Your task to perform on an android device: toggle location history Image 0: 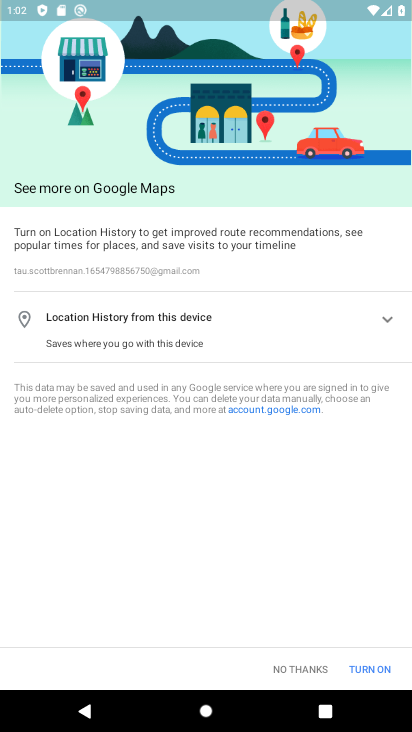
Step 0: press home button
Your task to perform on an android device: toggle location history Image 1: 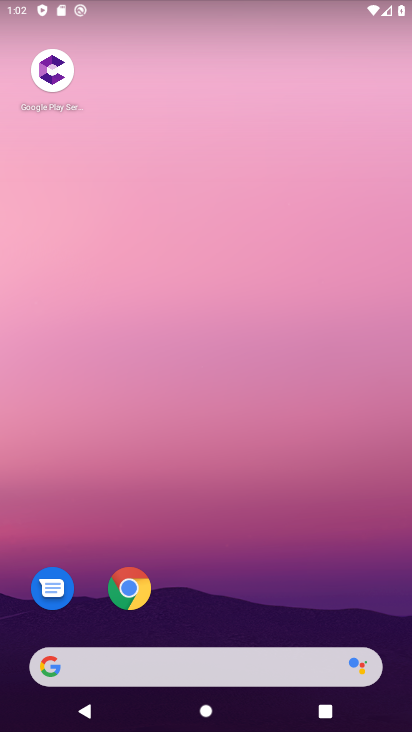
Step 1: drag from (374, 573) to (312, 0)
Your task to perform on an android device: toggle location history Image 2: 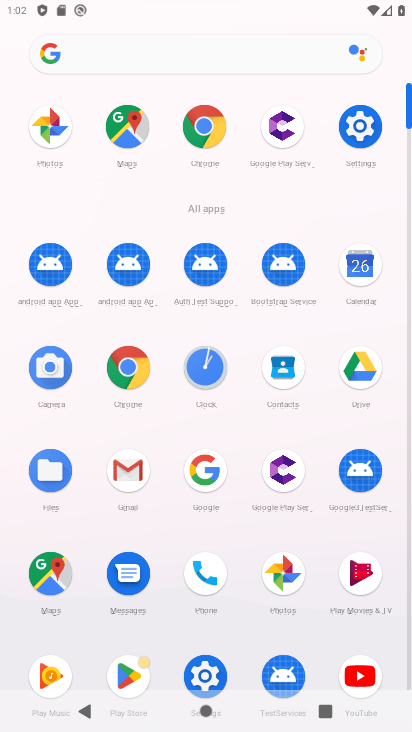
Step 2: click (215, 679)
Your task to perform on an android device: toggle location history Image 3: 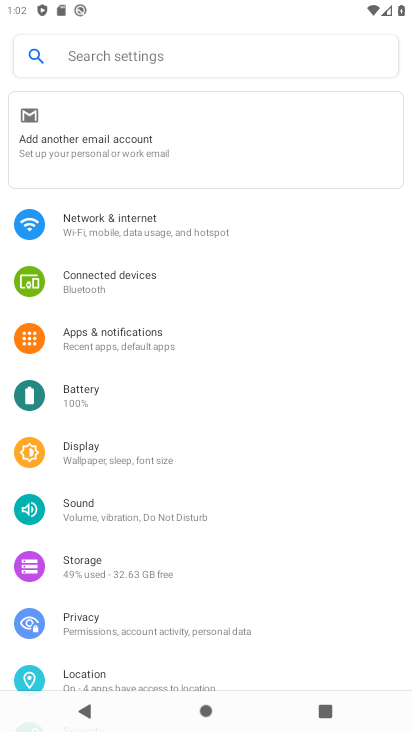
Step 3: click (168, 679)
Your task to perform on an android device: toggle location history Image 4: 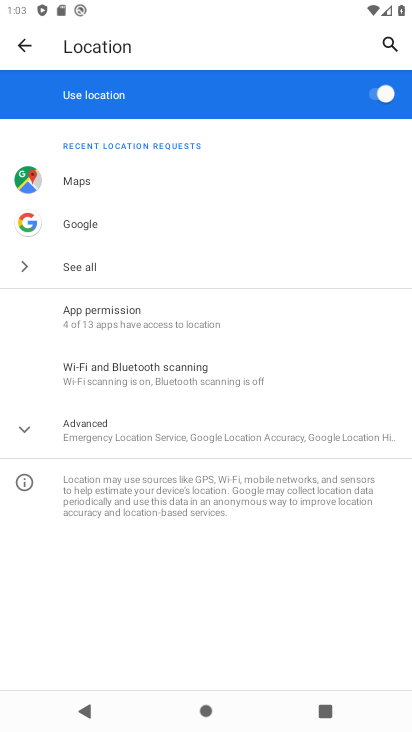
Step 4: click (82, 446)
Your task to perform on an android device: toggle location history Image 5: 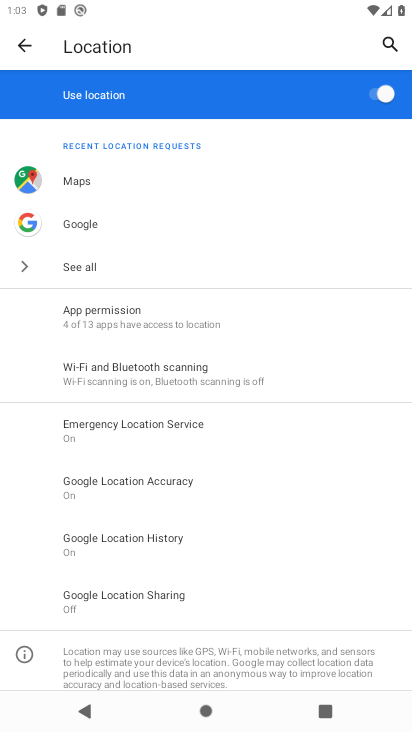
Step 5: click (144, 536)
Your task to perform on an android device: toggle location history Image 6: 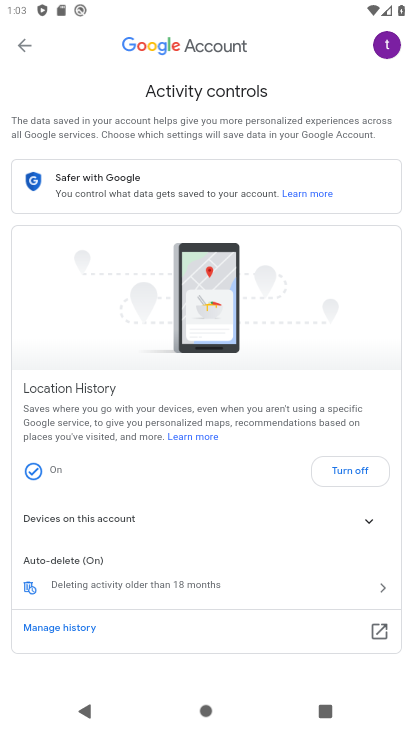
Step 6: click (338, 466)
Your task to perform on an android device: toggle location history Image 7: 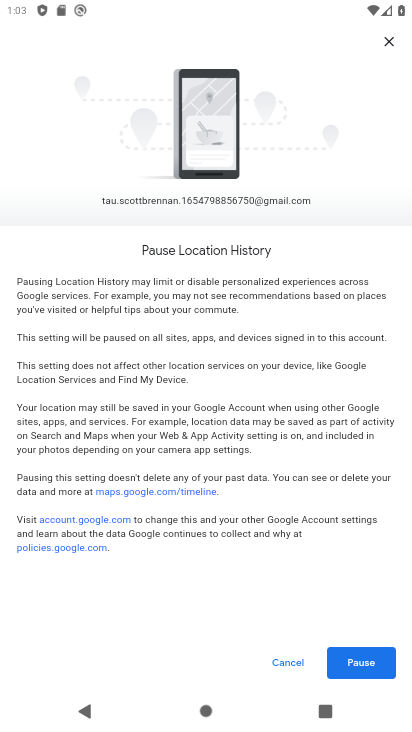
Step 7: click (358, 653)
Your task to perform on an android device: toggle location history Image 8: 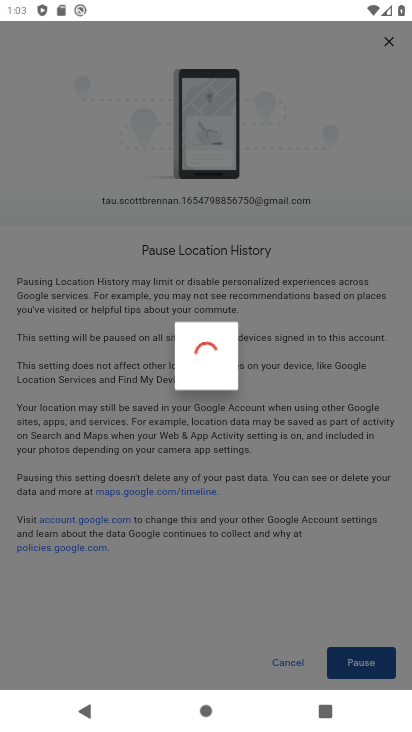
Step 8: click (357, 664)
Your task to perform on an android device: toggle location history Image 9: 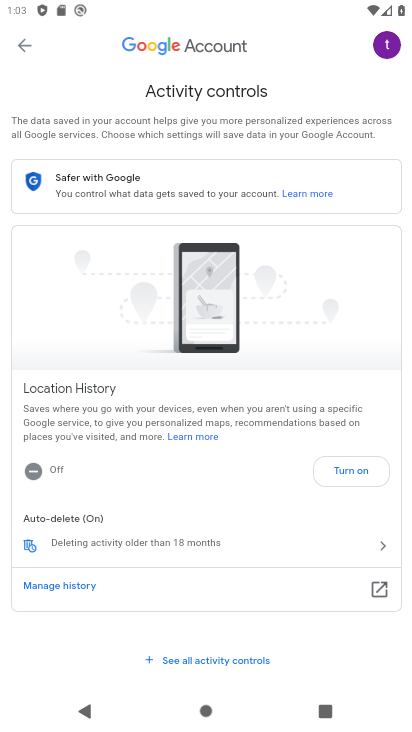
Step 9: task complete